Your task to perform on an android device: Go to accessibility settings Image 0: 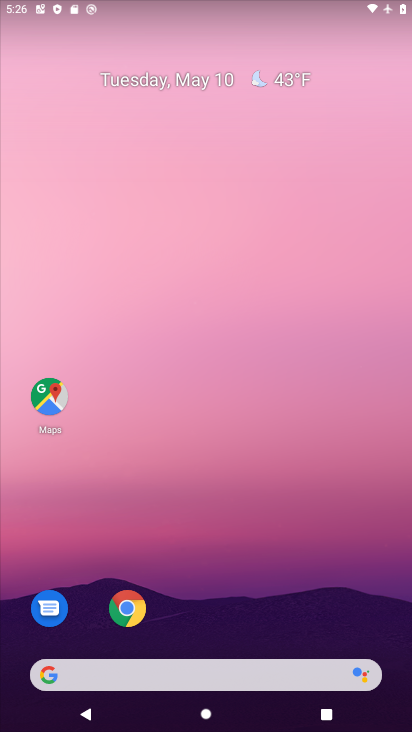
Step 0: drag from (232, 493) to (278, 77)
Your task to perform on an android device: Go to accessibility settings Image 1: 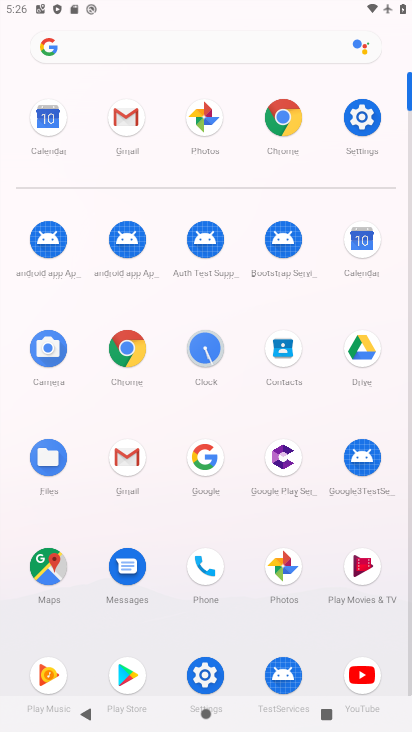
Step 1: click (374, 114)
Your task to perform on an android device: Go to accessibility settings Image 2: 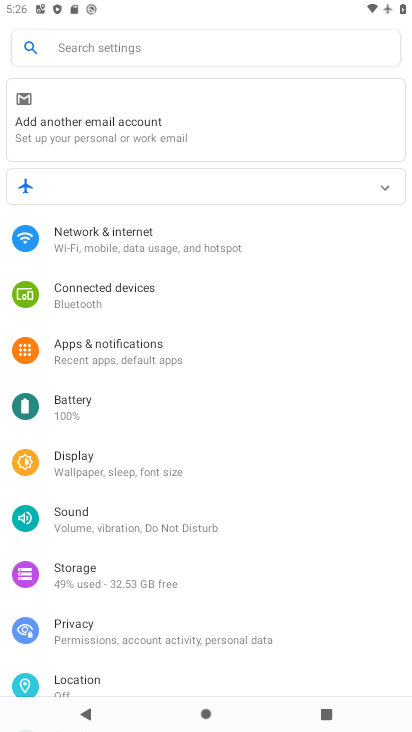
Step 2: drag from (146, 615) to (280, 91)
Your task to perform on an android device: Go to accessibility settings Image 3: 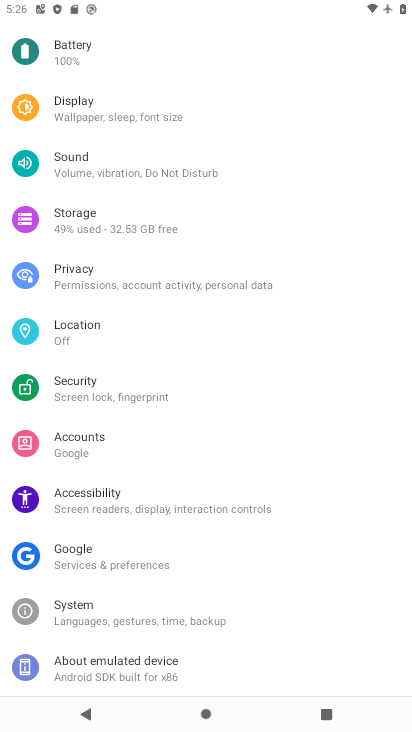
Step 3: click (89, 496)
Your task to perform on an android device: Go to accessibility settings Image 4: 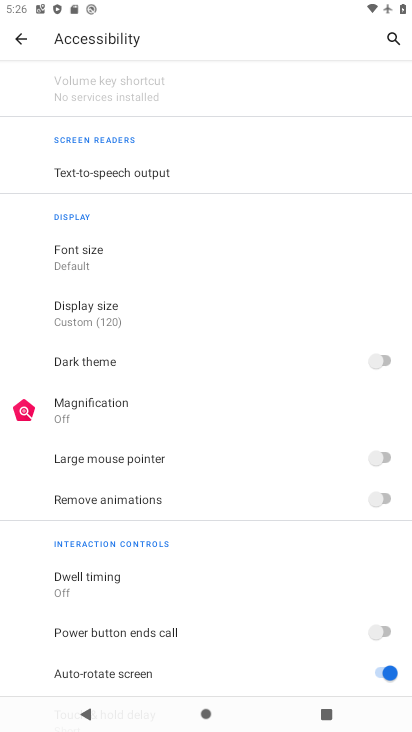
Step 4: task complete